Your task to perform on an android device: Go to wifi settings Image 0: 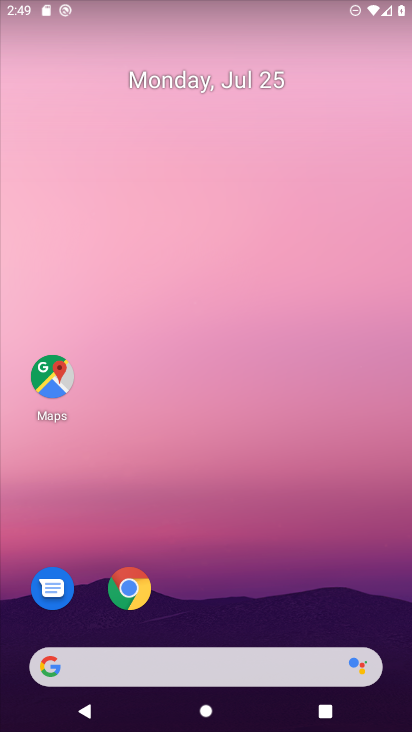
Step 0: drag from (211, 559) to (211, 163)
Your task to perform on an android device: Go to wifi settings Image 1: 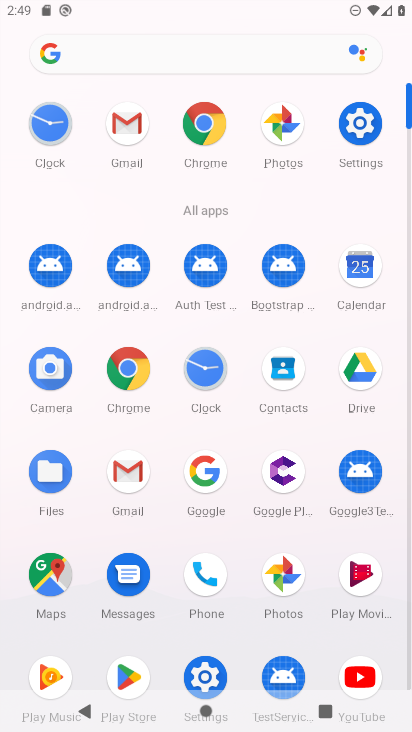
Step 1: click (352, 115)
Your task to perform on an android device: Go to wifi settings Image 2: 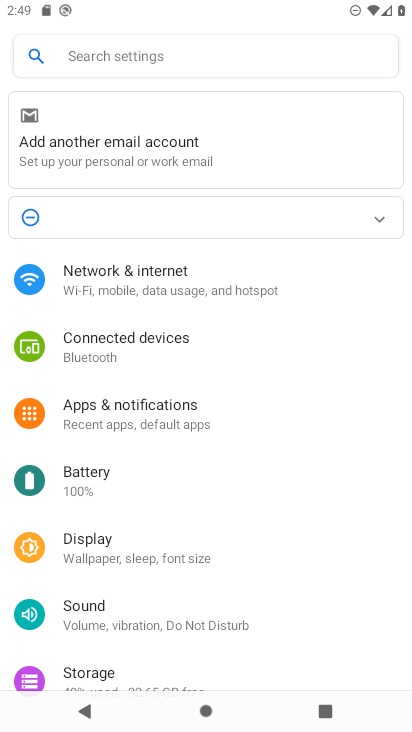
Step 2: click (126, 281)
Your task to perform on an android device: Go to wifi settings Image 3: 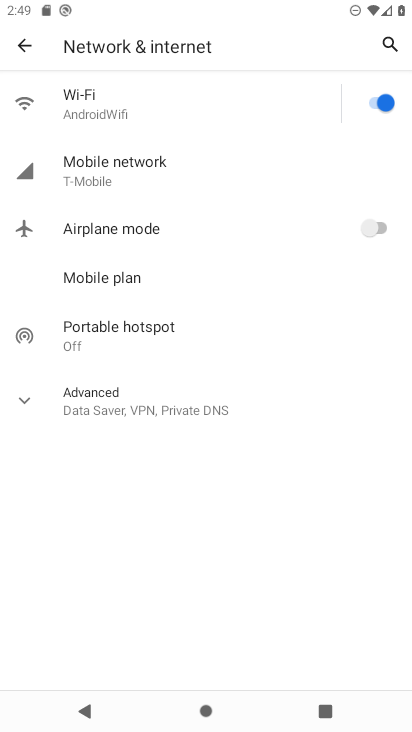
Step 3: click (130, 88)
Your task to perform on an android device: Go to wifi settings Image 4: 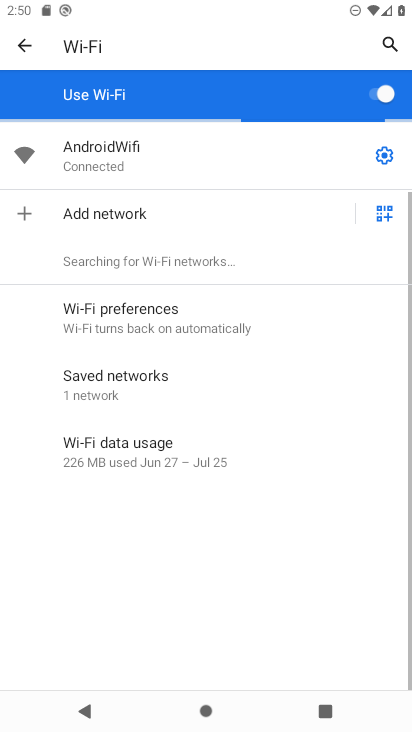
Step 4: task complete